Your task to perform on an android device: Open calendar and show me the third week of next month Image 0: 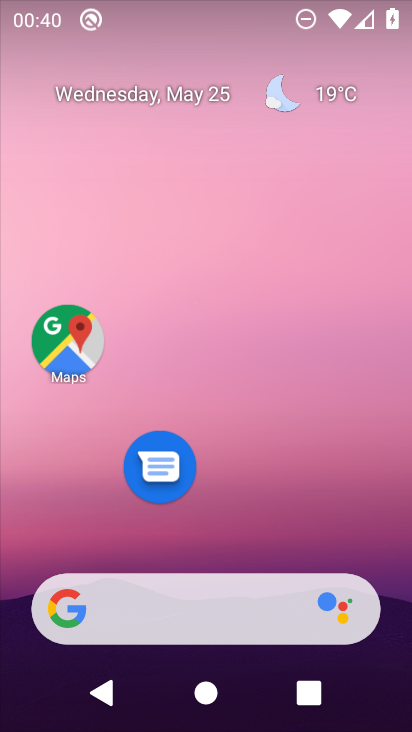
Step 0: drag from (240, 535) to (214, 50)
Your task to perform on an android device: Open calendar and show me the third week of next month Image 1: 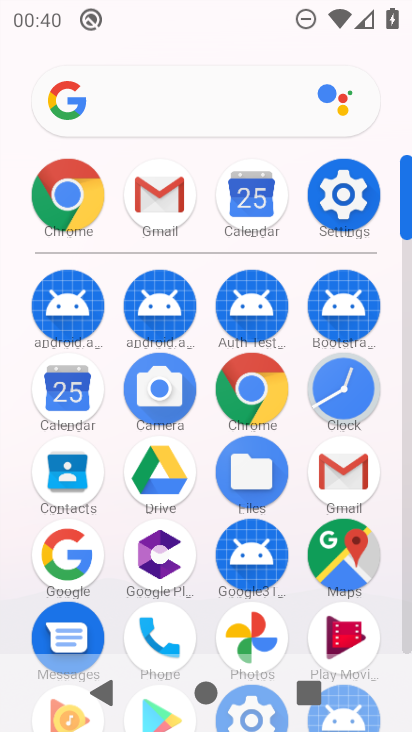
Step 1: click (86, 393)
Your task to perform on an android device: Open calendar and show me the third week of next month Image 2: 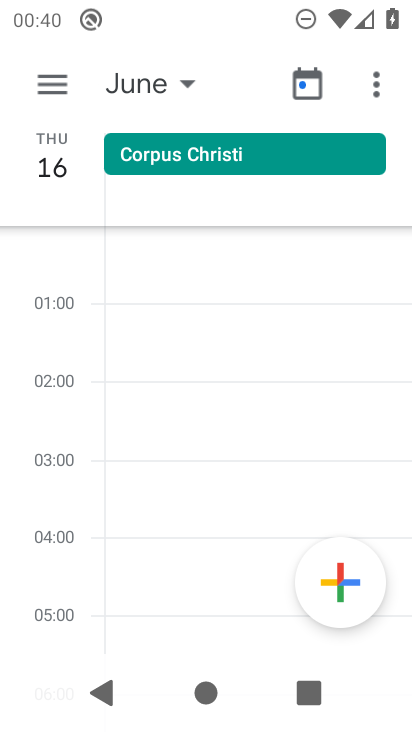
Step 2: click (183, 91)
Your task to perform on an android device: Open calendar and show me the third week of next month Image 3: 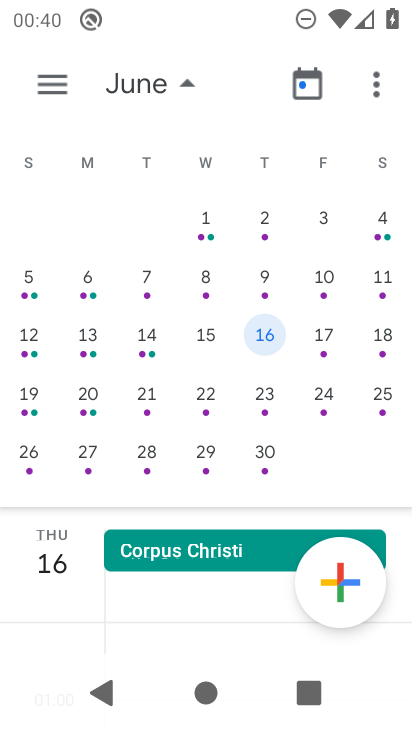
Step 3: click (262, 338)
Your task to perform on an android device: Open calendar and show me the third week of next month Image 4: 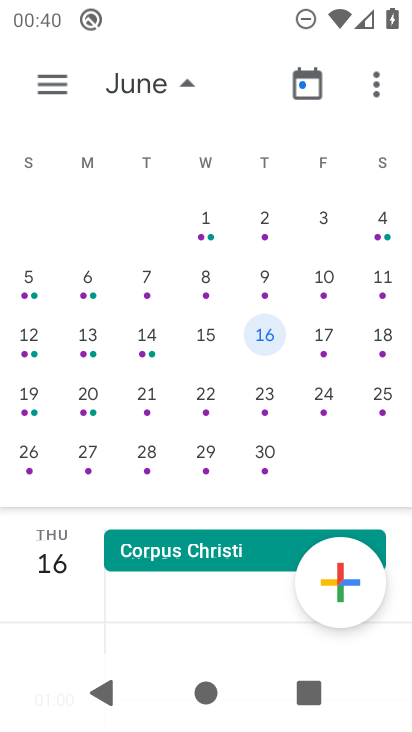
Step 4: task complete